Your task to perform on an android device: Show me the alarms in the clock app Image 0: 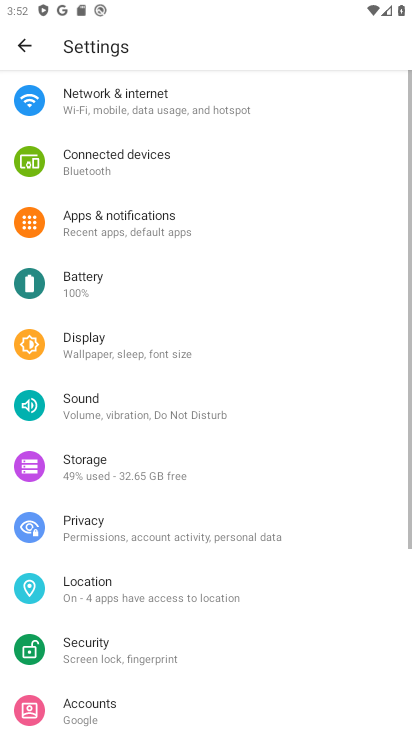
Step 0: press home button
Your task to perform on an android device: Show me the alarms in the clock app Image 1: 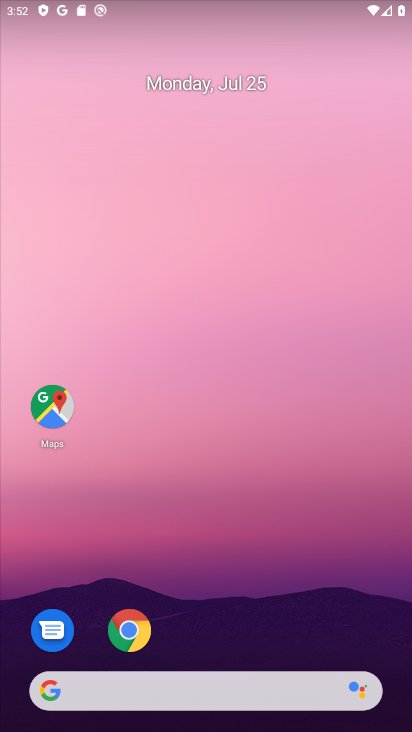
Step 1: drag from (181, 684) to (283, 191)
Your task to perform on an android device: Show me the alarms in the clock app Image 2: 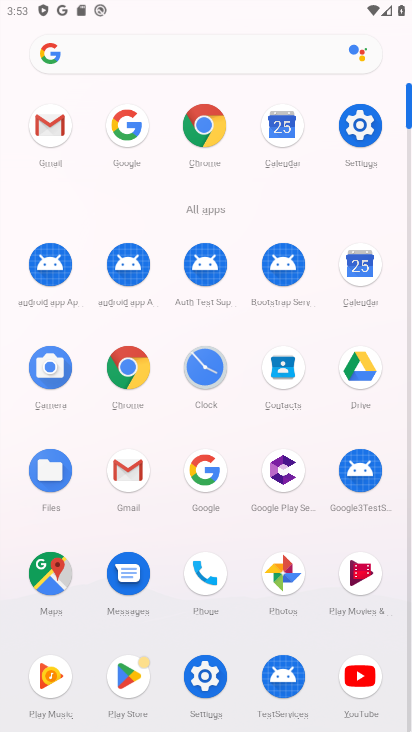
Step 2: click (204, 369)
Your task to perform on an android device: Show me the alarms in the clock app Image 3: 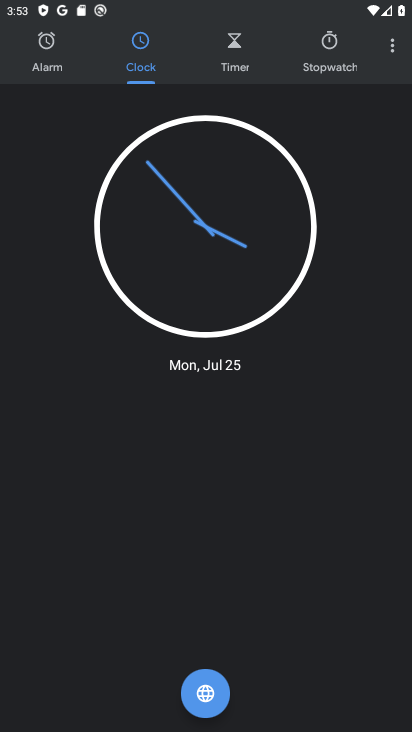
Step 3: click (46, 44)
Your task to perform on an android device: Show me the alarms in the clock app Image 4: 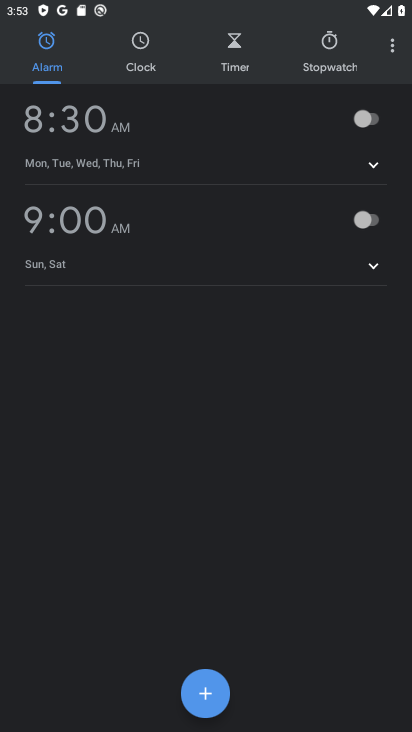
Step 4: click (206, 691)
Your task to perform on an android device: Show me the alarms in the clock app Image 5: 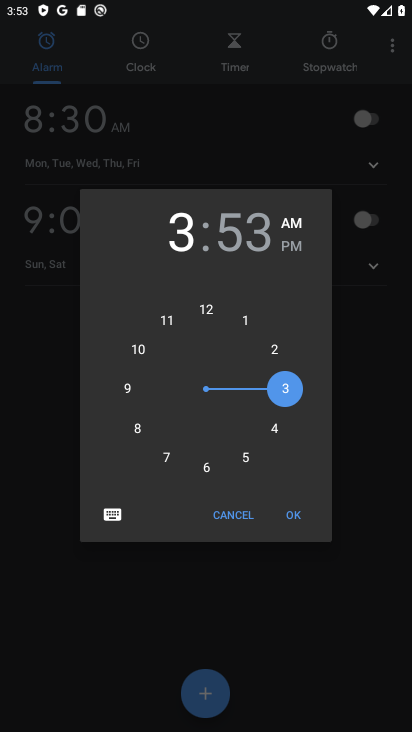
Step 5: click (205, 315)
Your task to perform on an android device: Show me the alarms in the clock app Image 6: 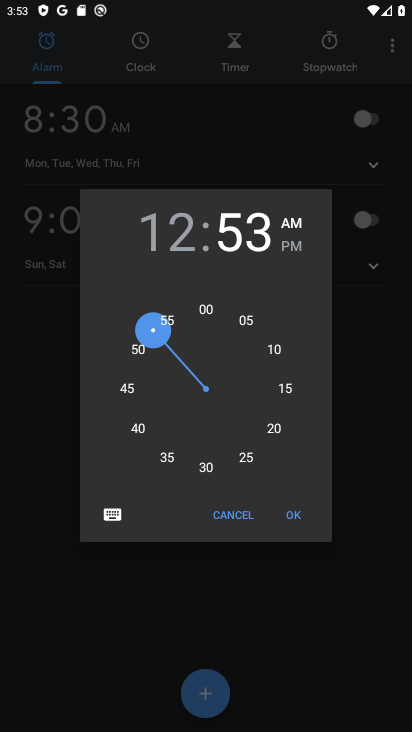
Step 6: click (245, 321)
Your task to perform on an android device: Show me the alarms in the clock app Image 7: 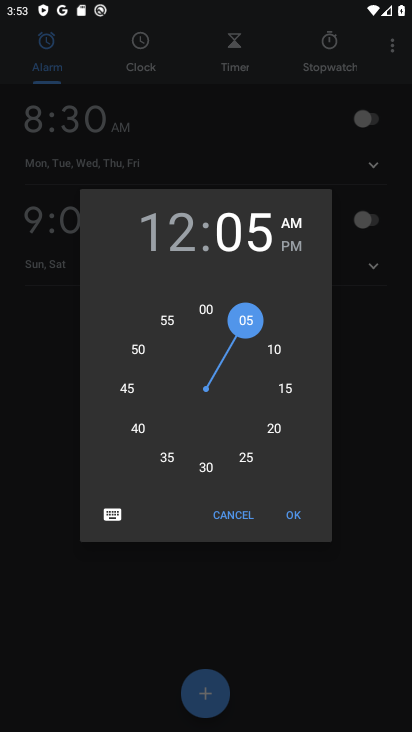
Step 7: click (304, 515)
Your task to perform on an android device: Show me the alarms in the clock app Image 8: 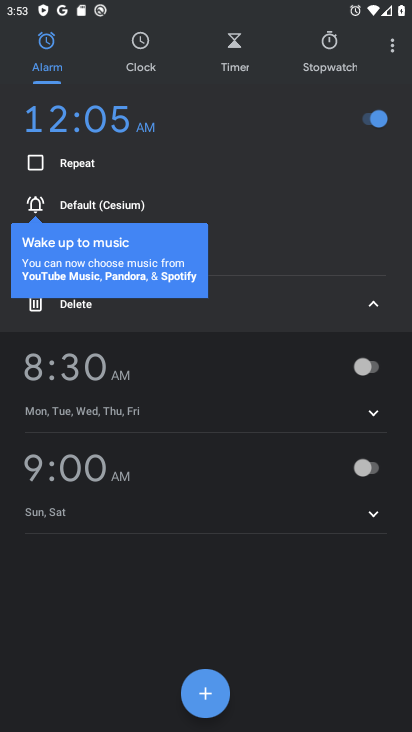
Step 8: task complete